Your task to perform on an android device: Open settings Image 0: 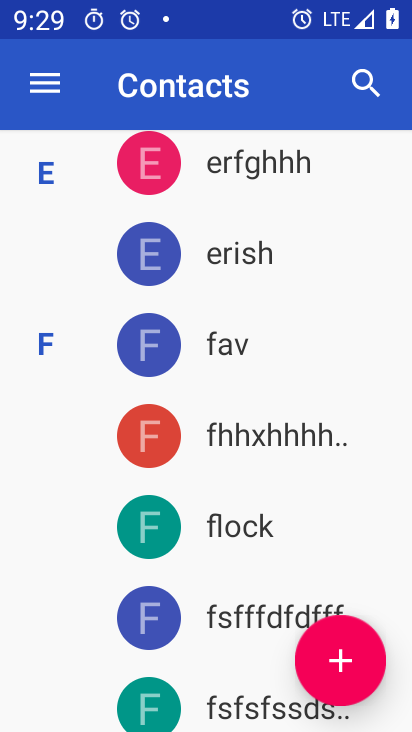
Step 0: press home button
Your task to perform on an android device: Open settings Image 1: 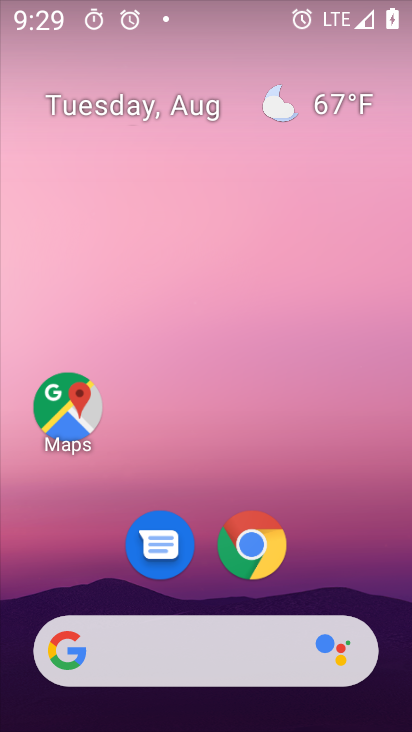
Step 1: drag from (257, 608) to (267, 1)
Your task to perform on an android device: Open settings Image 2: 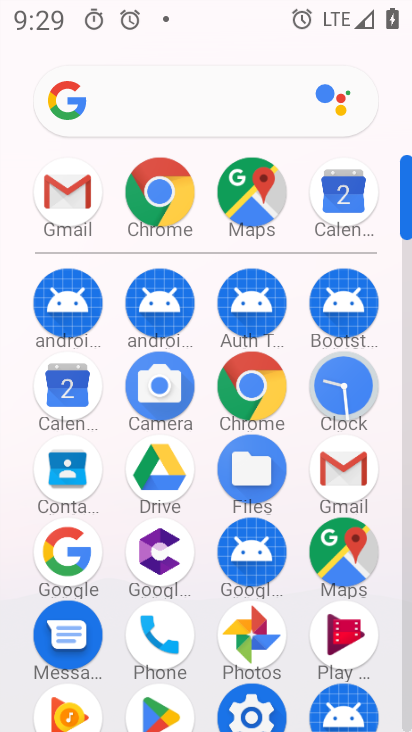
Step 2: drag from (255, 492) to (285, 132)
Your task to perform on an android device: Open settings Image 3: 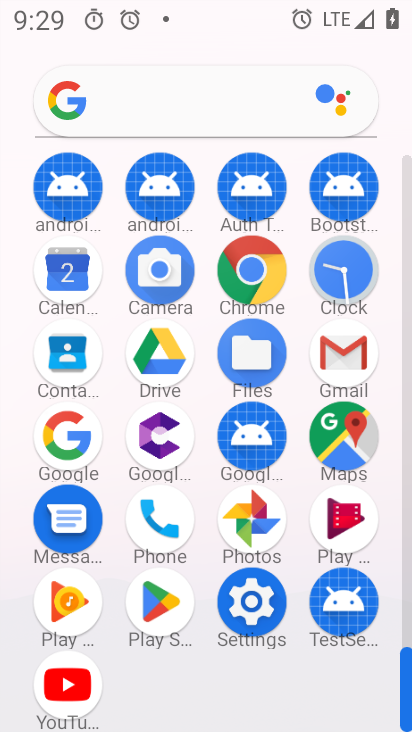
Step 3: click (252, 609)
Your task to perform on an android device: Open settings Image 4: 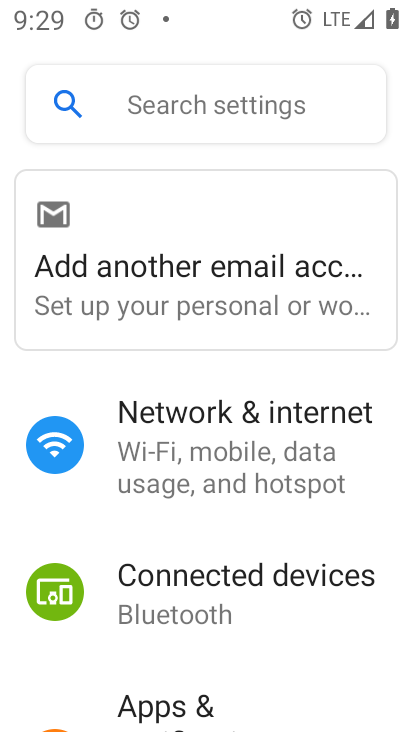
Step 4: task complete